Your task to perform on an android device: Go to eBay Image 0: 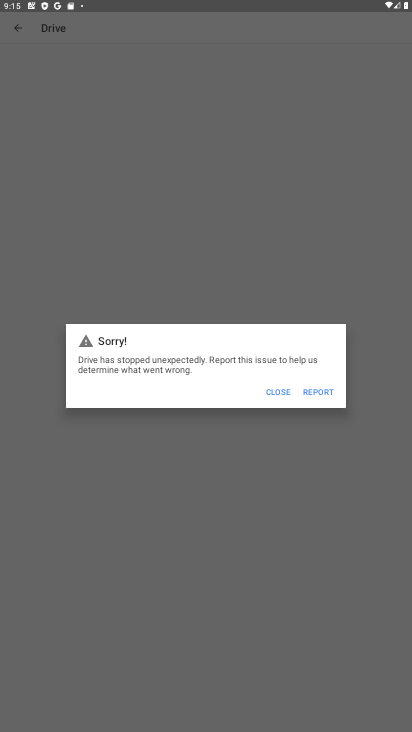
Step 0: task complete